Your task to perform on an android device: change notifications settings Image 0: 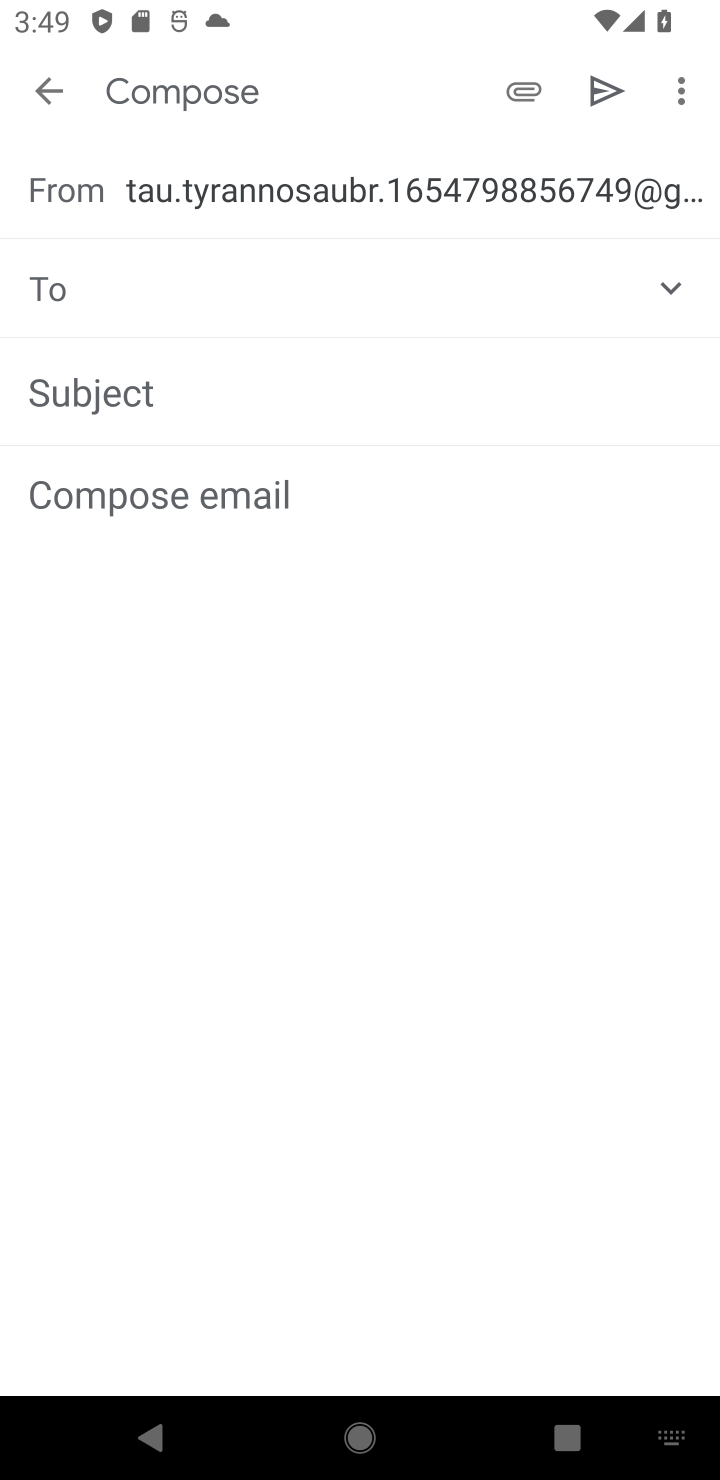
Step 0: press home button
Your task to perform on an android device: change notifications settings Image 1: 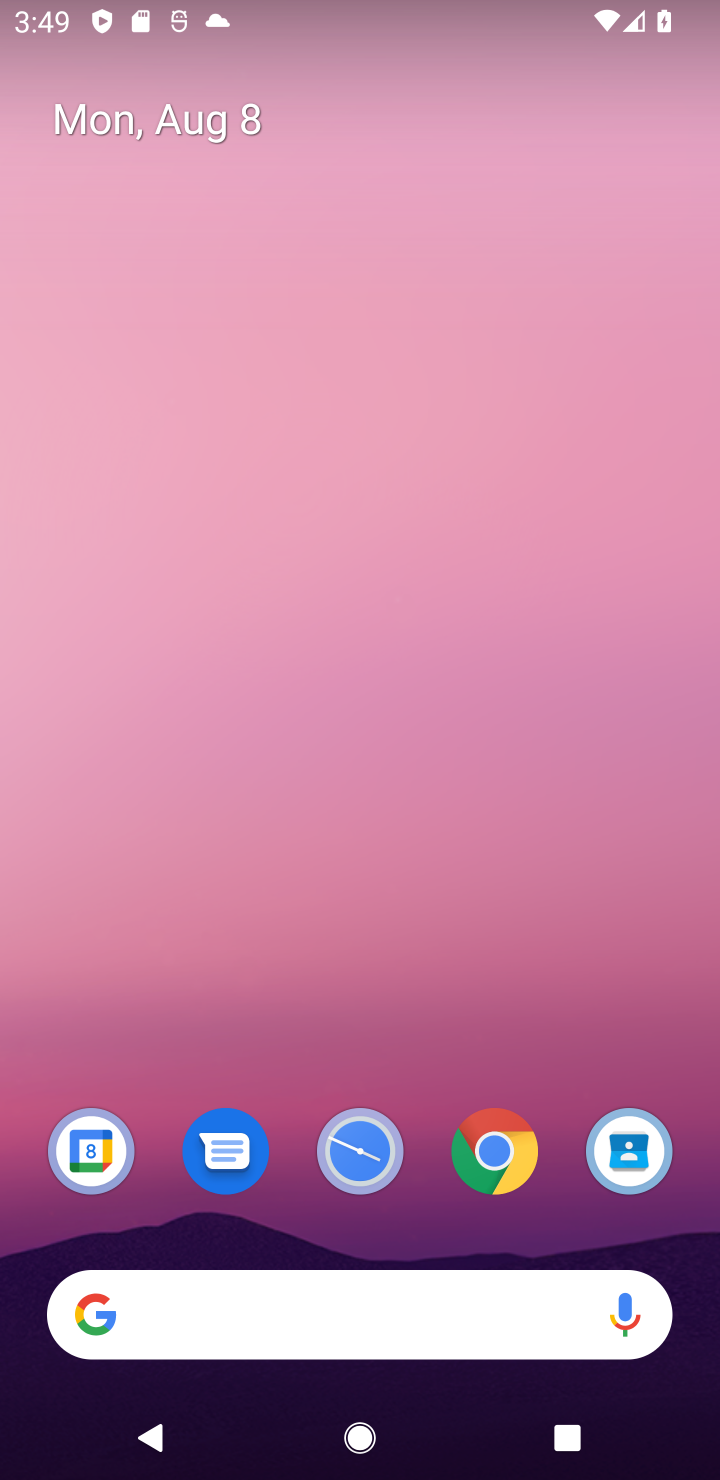
Step 1: drag from (322, 961) to (322, 136)
Your task to perform on an android device: change notifications settings Image 2: 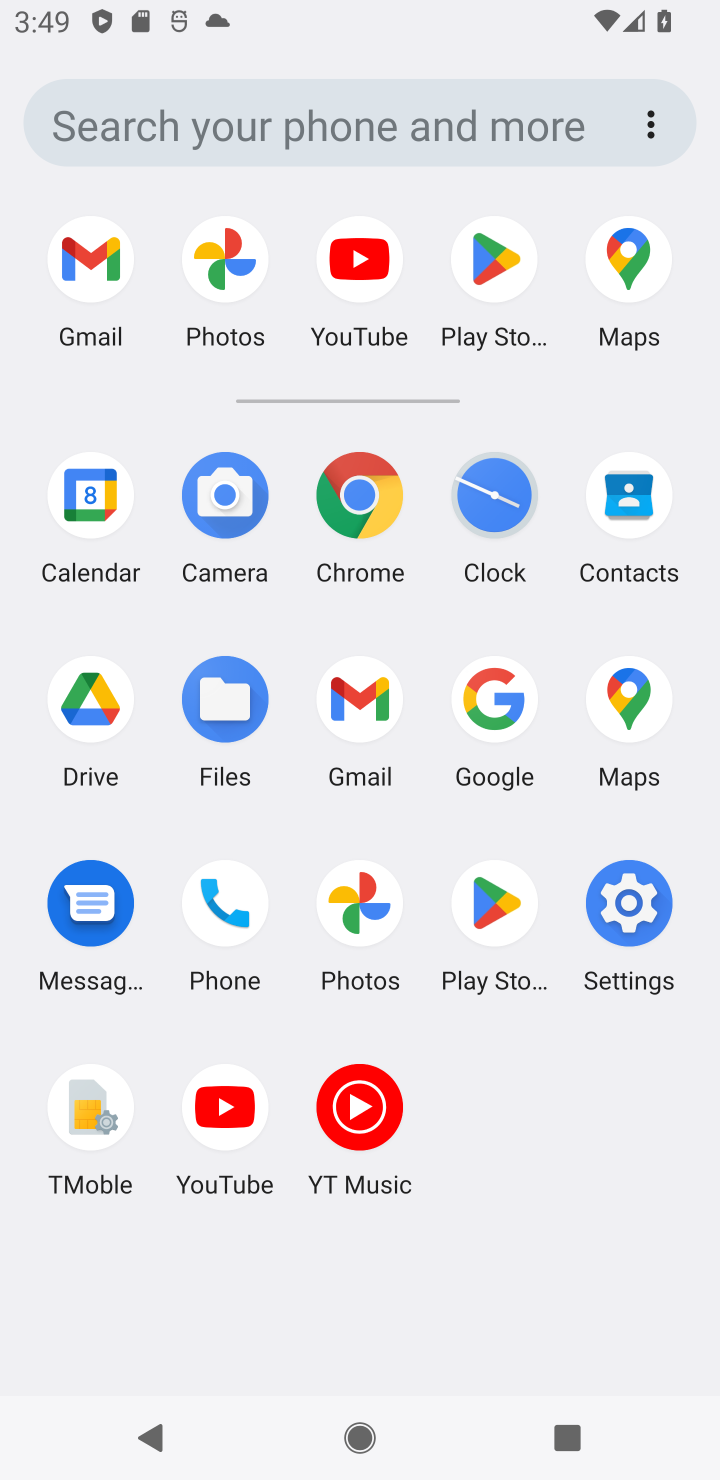
Step 2: click (634, 897)
Your task to perform on an android device: change notifications settings Image 3: 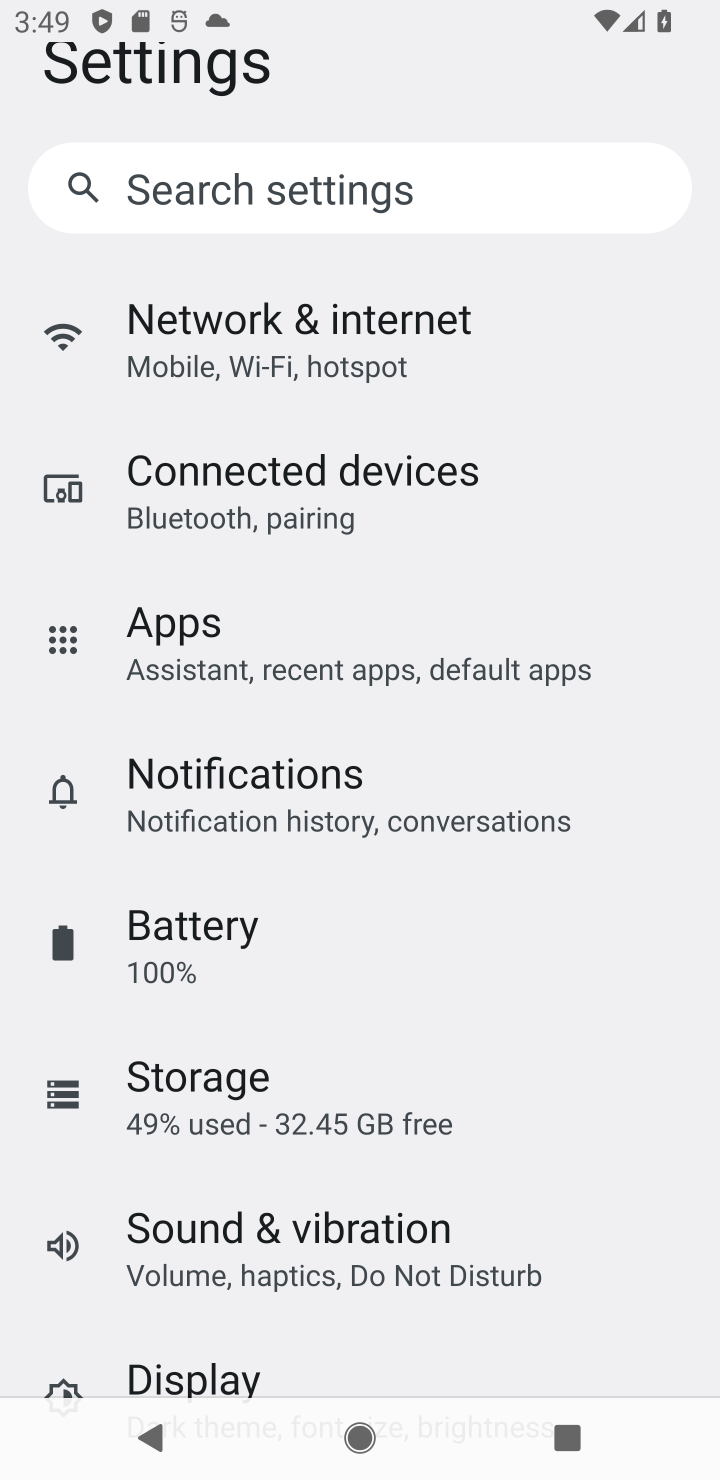
Step 3: click (426, 834)
Your task to perform on an android device: change notifications settings Image 4: 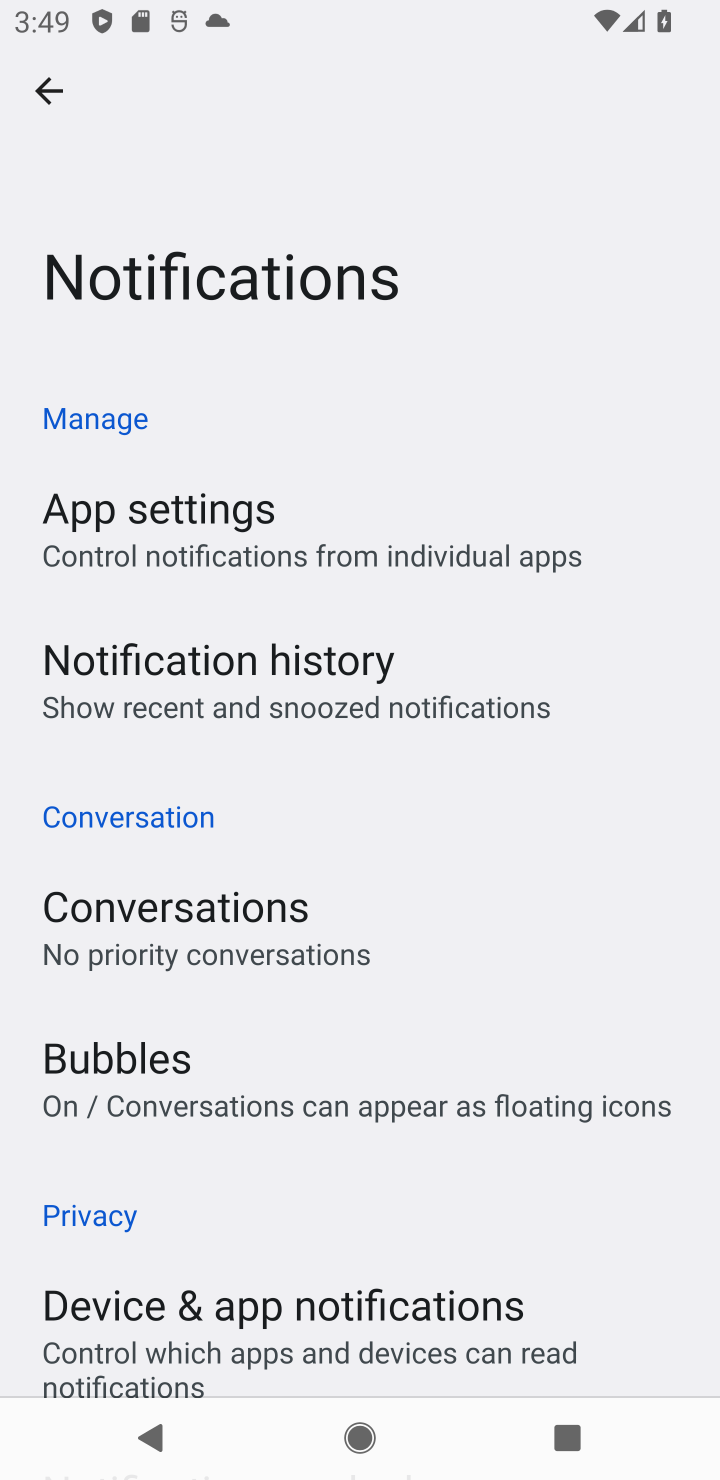
Step 4: drag from (420, 737) to (420, 486)
Your task to perform on an android device: change notifications settings Image 5: 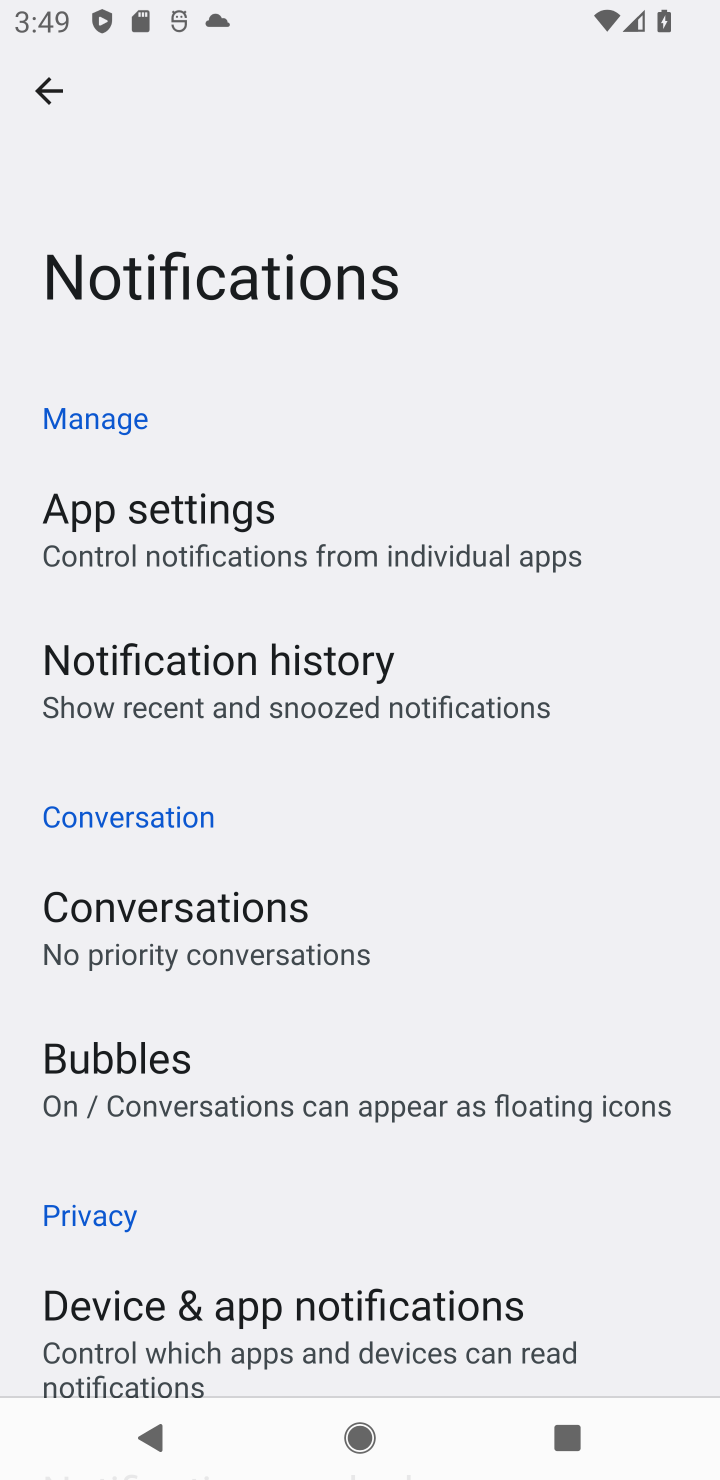
Step 5: drag from (400, 1121) to (412, 476)
Your task to perform on an android device: change notifications settings Image 6: 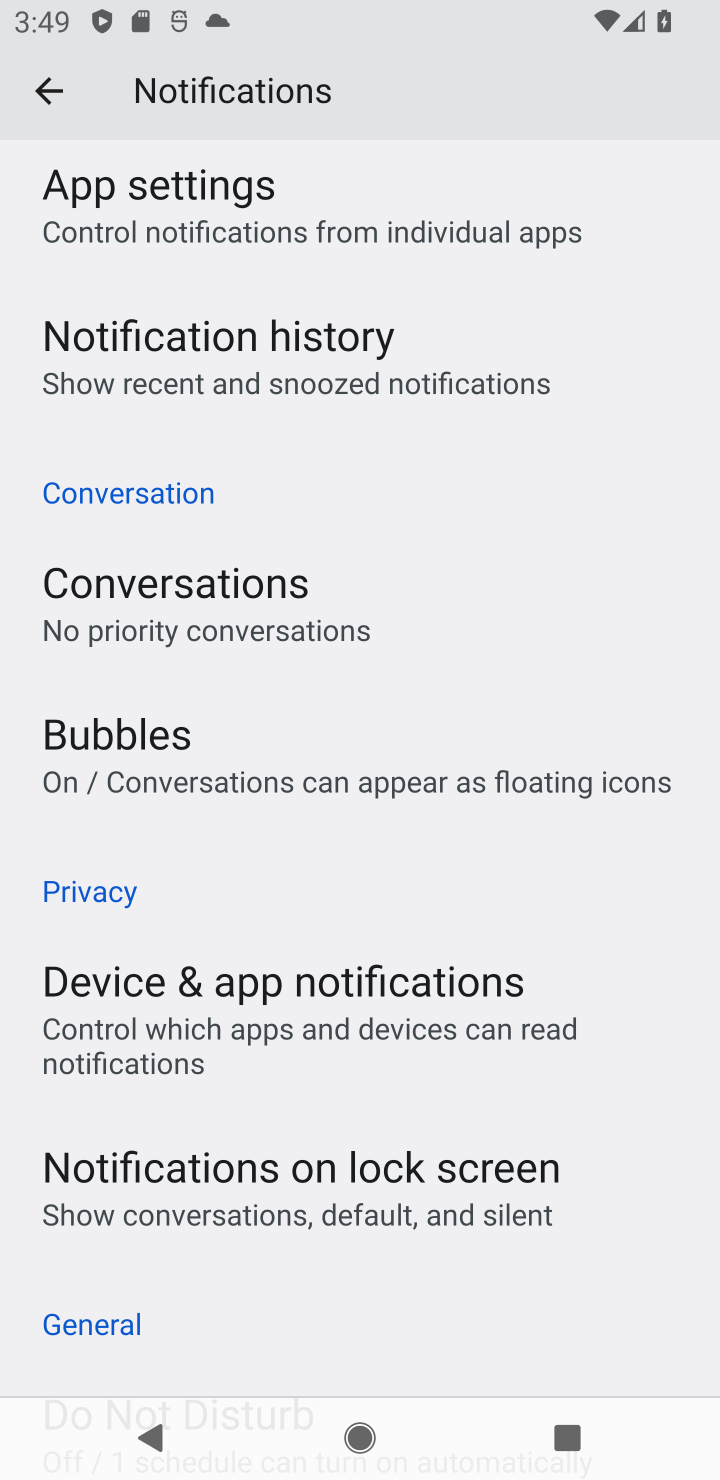
Step 6: click (403, 1242)
Your task to perform on an android device: change notifications settings Image 7: 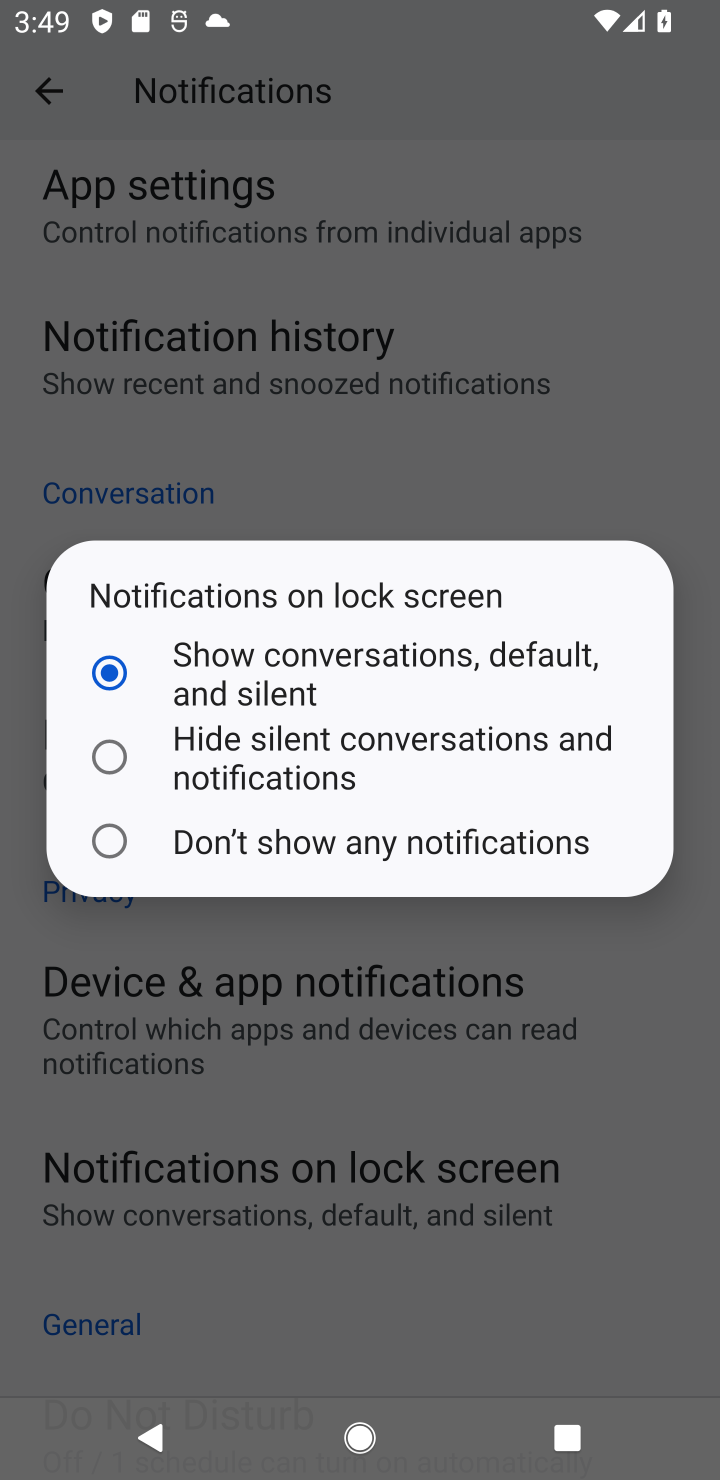
Step 7: click (298, 842)
Your task to perform on an android device: change notifications settings Image 8: 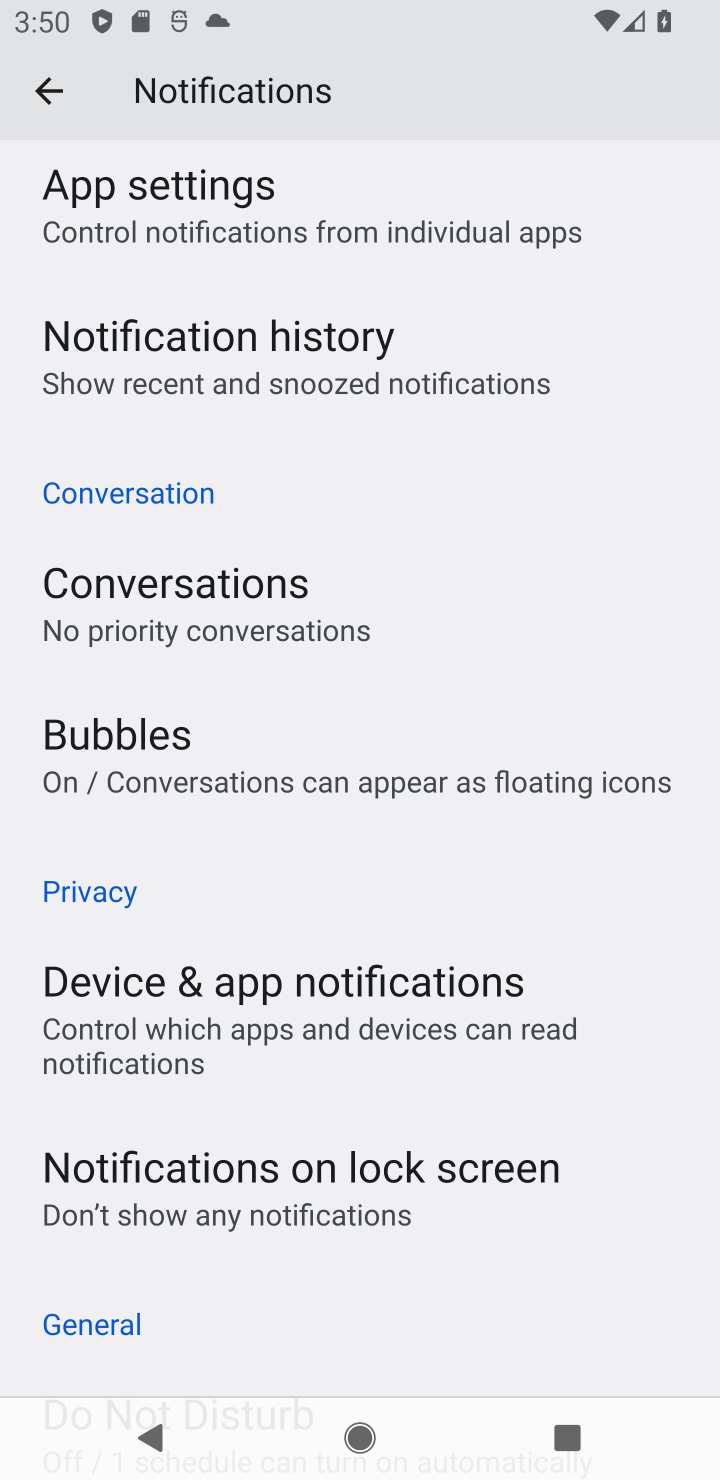
Step 8: task complete